Your task to perform on an android device: Go to sound settings Image 0: 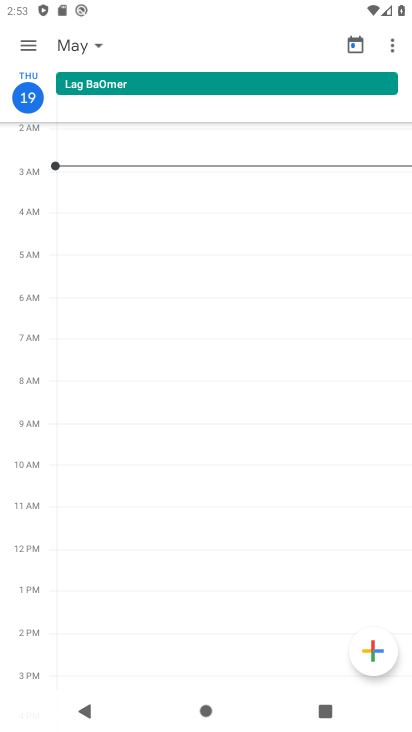
Step 0: press home button
Your task to perform on an android device: Go to sound settings Image 1: 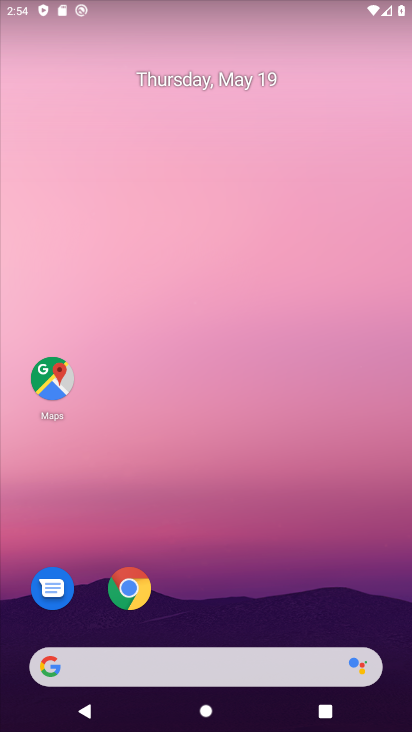
Step 1: drag from (323, 547) to (313, 94)
Your task to perform on an android device: Go to sound settings Image 2: 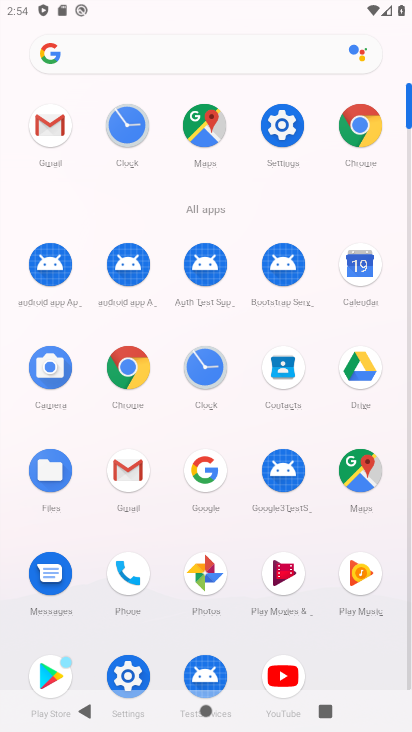
Step 2: click (293, 130)
Your task to perform on an android device: Go to sound settings Image 3: 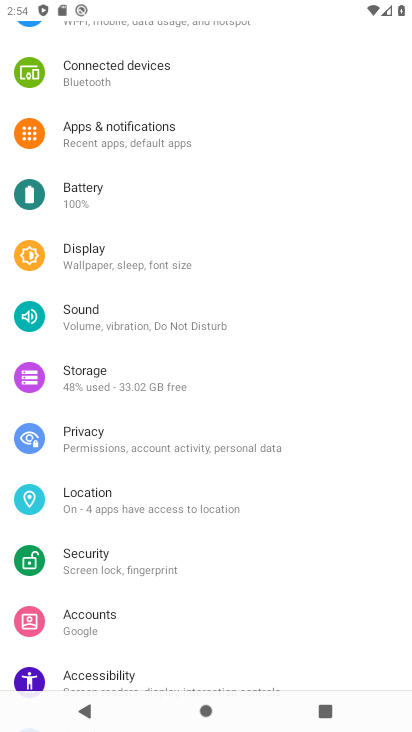
Step 3: click (145, 318)
Your task to perform on an android device: Go to sound settings Image 4: 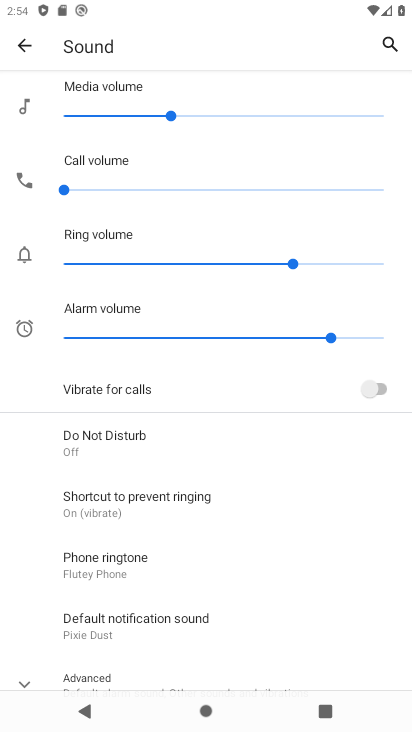
Step 4: task complete